Your task to perform on an android device: Clear the shopping cart on bestbuy. Add usb-a to usb-b to the cart on bestbuy Image 0: 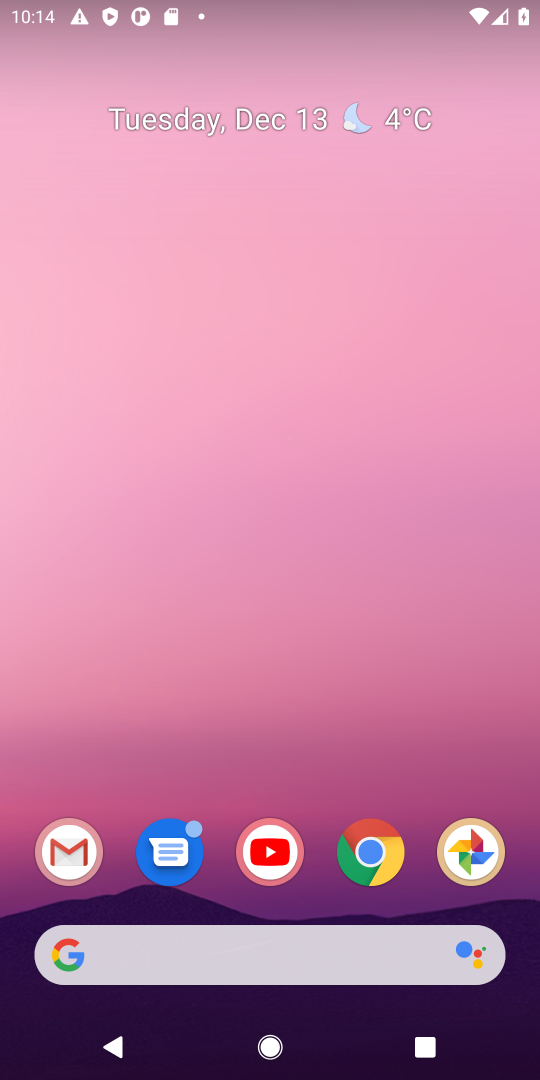
Step 0: press home button
Your task to perform on an android device: Clear the shopping cart on bestbuy. Add usb-a to usb-b to the cart on bestbuy Image 1: 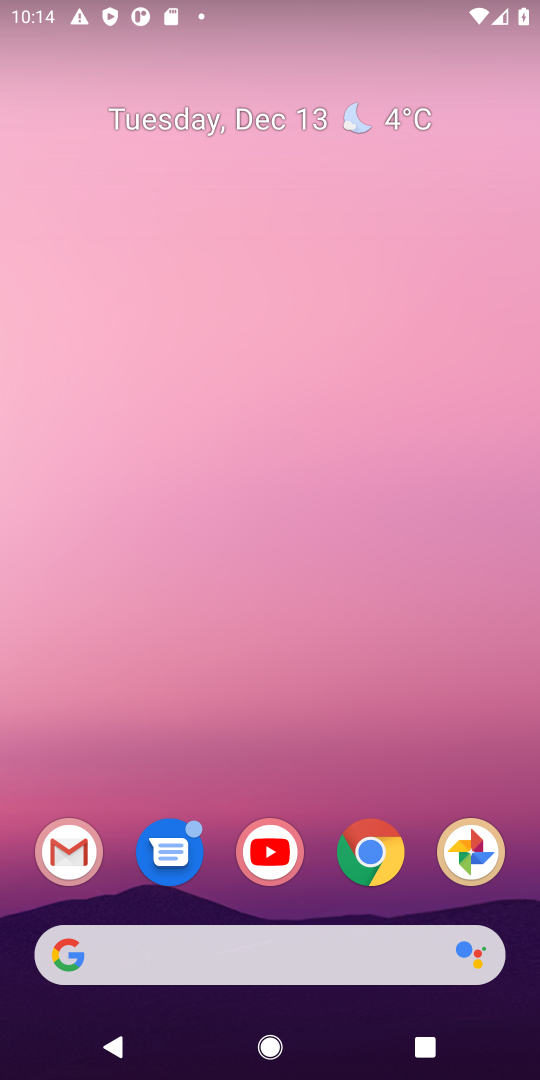
Step 1: click (106, 945)
Your task to perform on an android device: Clear the shopping cart on bestbuy. Add usb-a to usb-b to the cart on bestbuy Image 2: 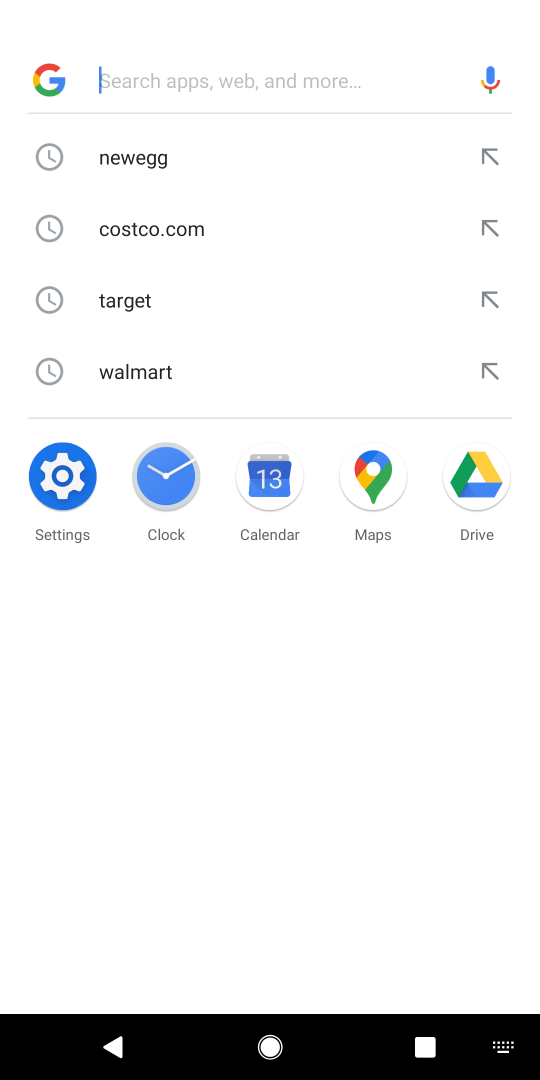
Step 2: type "bestbuy"
Your task to perform on an android device: Clear the shopping cart on bestbuy. Add usb-a to usb-b to the cart on bestbuy Image 3: 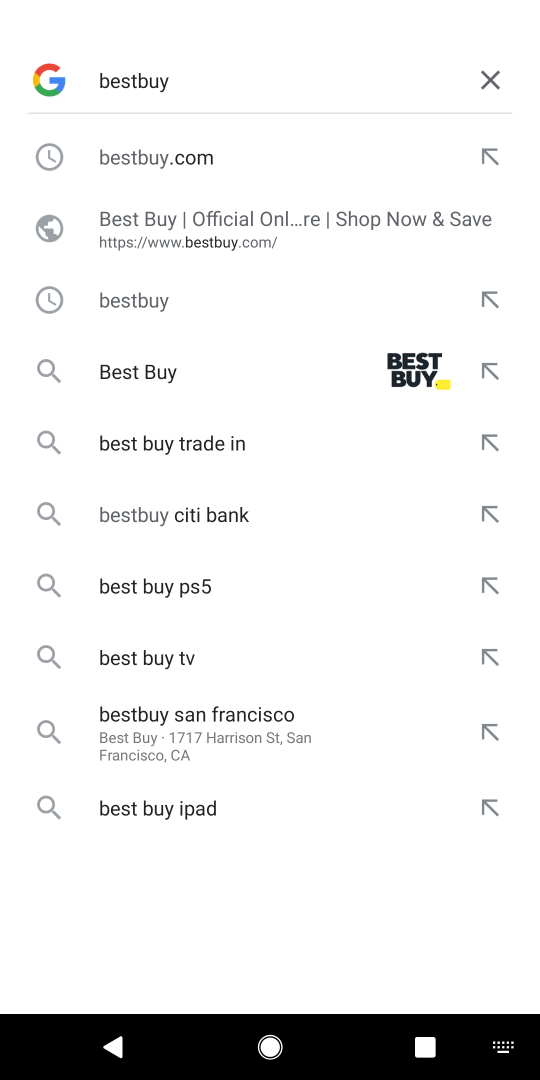
Step 3: press enter
Your task to perform on an android device: Clear the shopping cart on bestbuy. Add usb-a to usb-b to the cart on bestbuy Image 4: 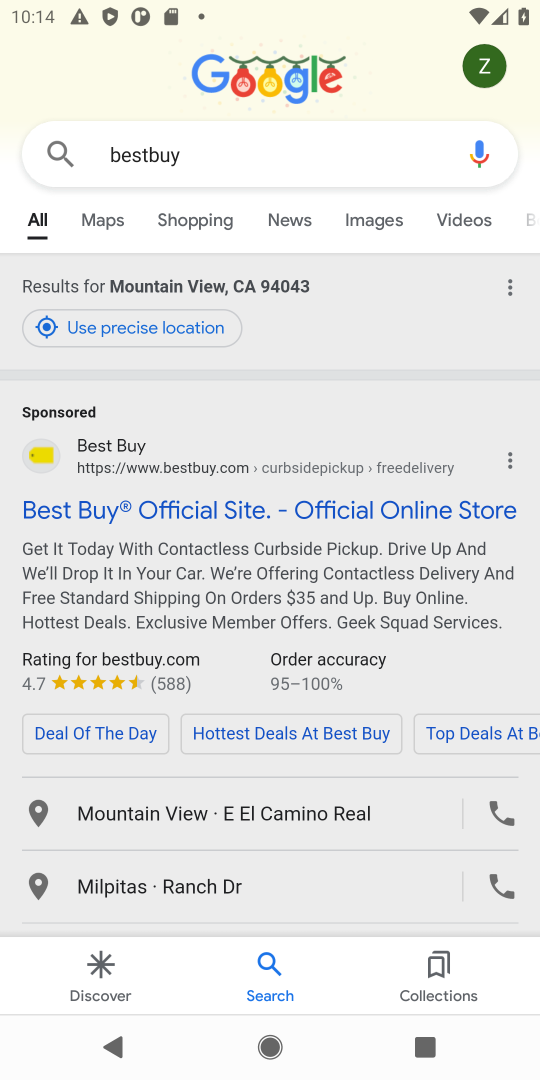
Step 4: click (255, 502)
Your task to perform on an android device: Clear the shopping cart on bestbuy. Add usb-a to usb-b to the cart on bestbuy Image 5: 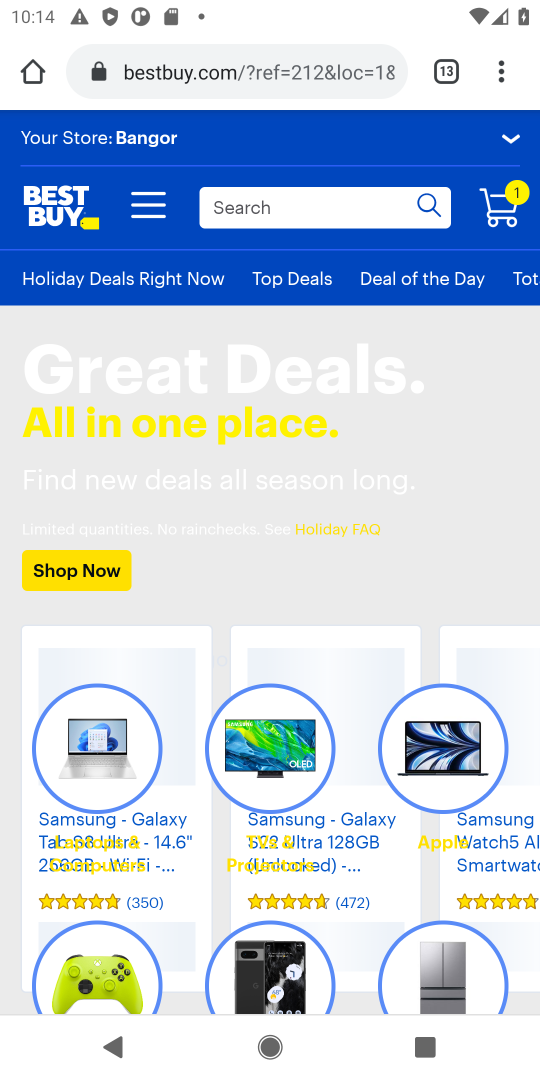
Step 5: click (499, 207)
Your task to perform on an android device: Clear the shopping cart on bestbuy. Add usb-a to usb-b to the cart on bestbuy Image 6: 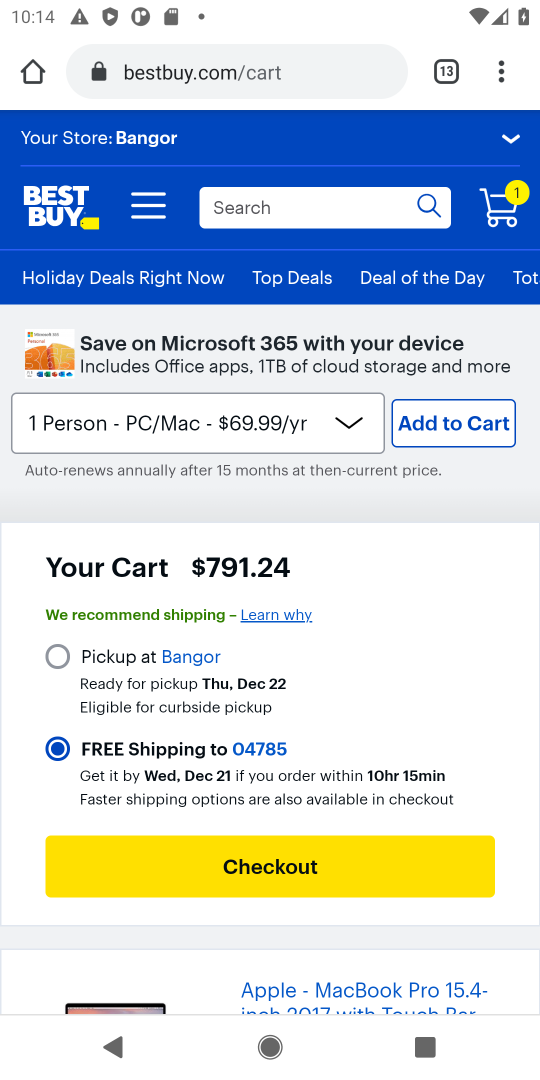
Step 6: drag from (383, 904) to (405, 633)
Your task to perform on an android device: Clear the shopping cart on bestbuy. Add usb-a to usb-b to the cart on bestbuy Image 7: 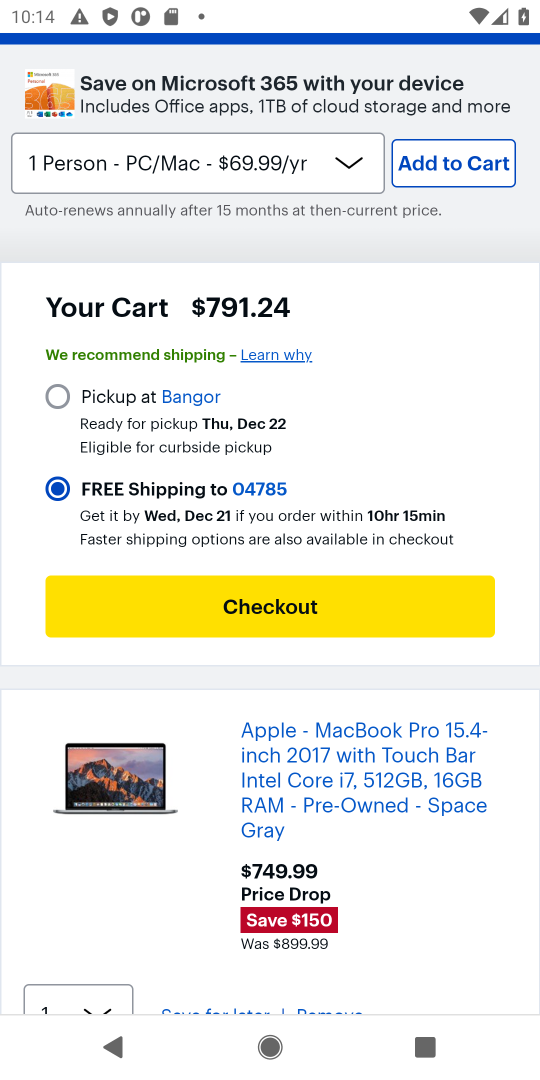
Step 7: drag from (372, 840) to (374, 434)
Your task to perform on an android device: Clear the shopping cart on bestbuy. Add usb-a to usb-b to the cart on bestbuy Image 8: 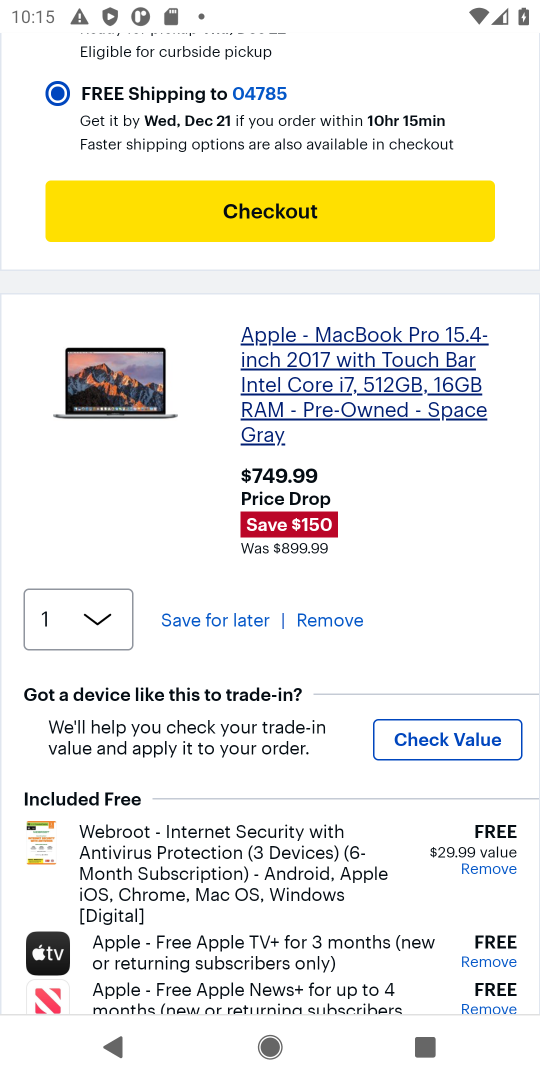
Step 8: click (313, 621)
Your task to perform on an android device: Clear the shopping cart on bestbuy. Add usb-a to usb-b to the cart on bestbuy Image 9: 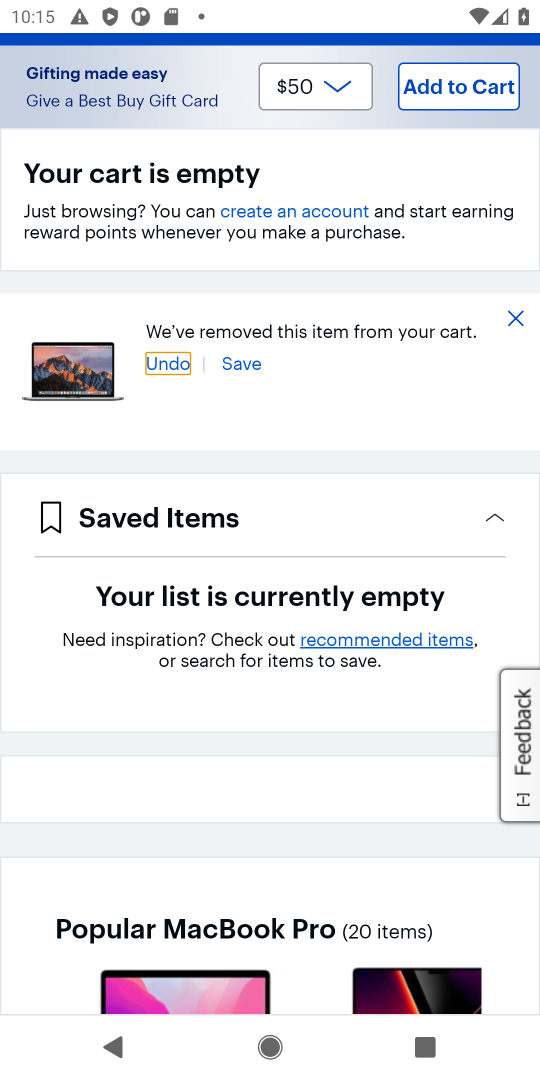
Step 9: drag from (379, 239) to (331, 731)
Your task to perform on an android device: Clear the shopping cart on bestbuy. Add usb-a to usb-b to the cart on bestbuy Image 10: 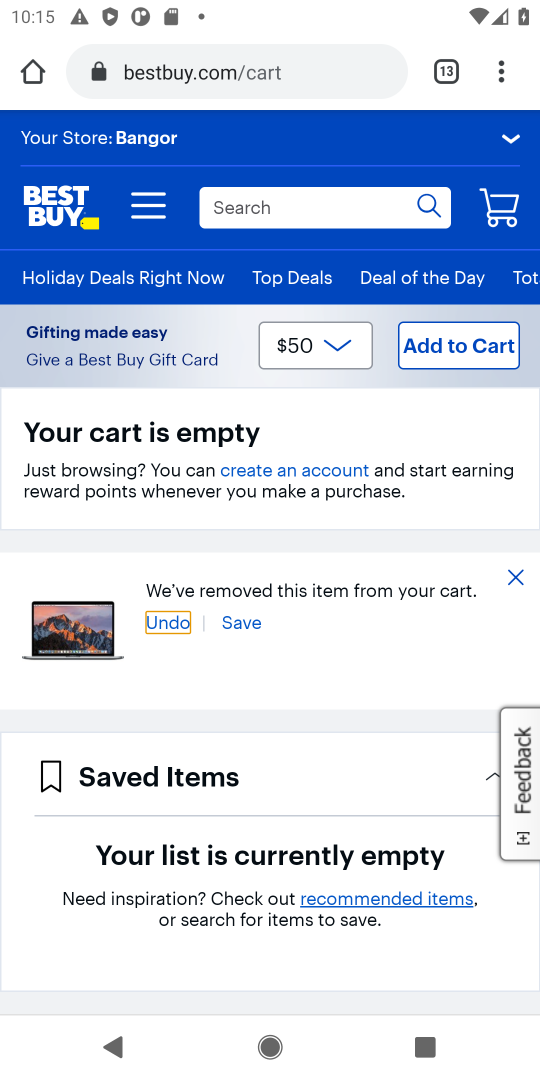
Step 10: click (278, 205)
Your task to perform on an android device: Clear the shopping cart on bestbuy. Add usb-a to usb-b to the cart on bestbuy Image 11: 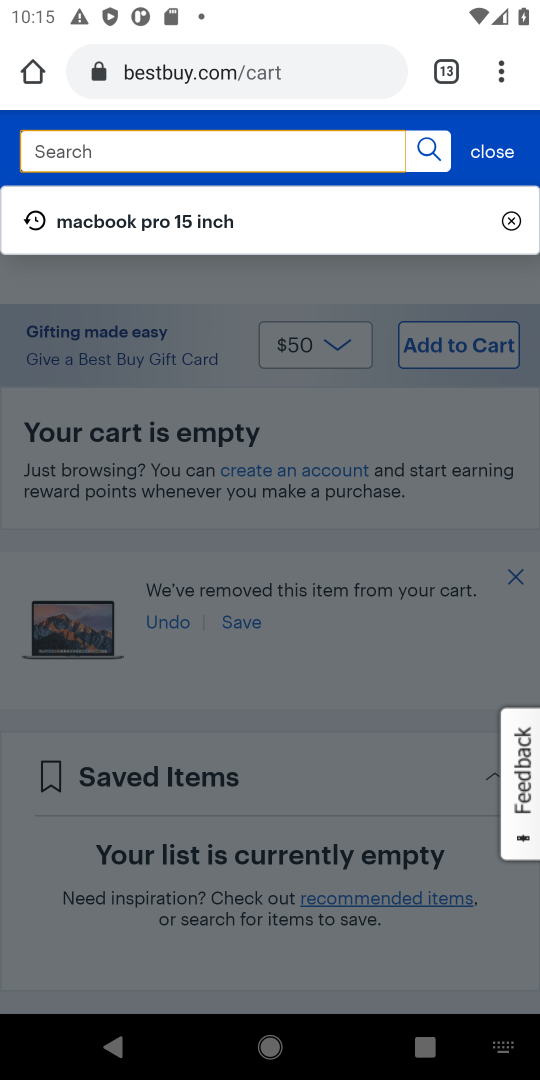
Step 11: type "usb-a to usb-b"
Your task to perform on an android device: Clear the shopping cart on bestbuy. Add usb-a to usb-b to the cart on bestbuy Image 12: 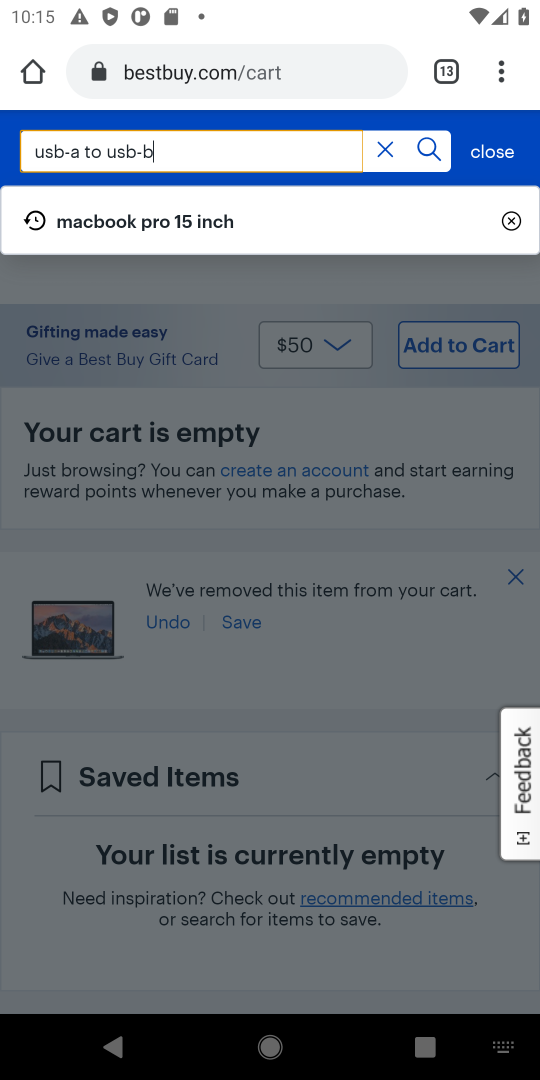
Step 12: press enter
Your task to perform on an android device: Clear the shopping cart on bestbuy. Add usb-a to usb-b to the cart on bestbuy Image 13: 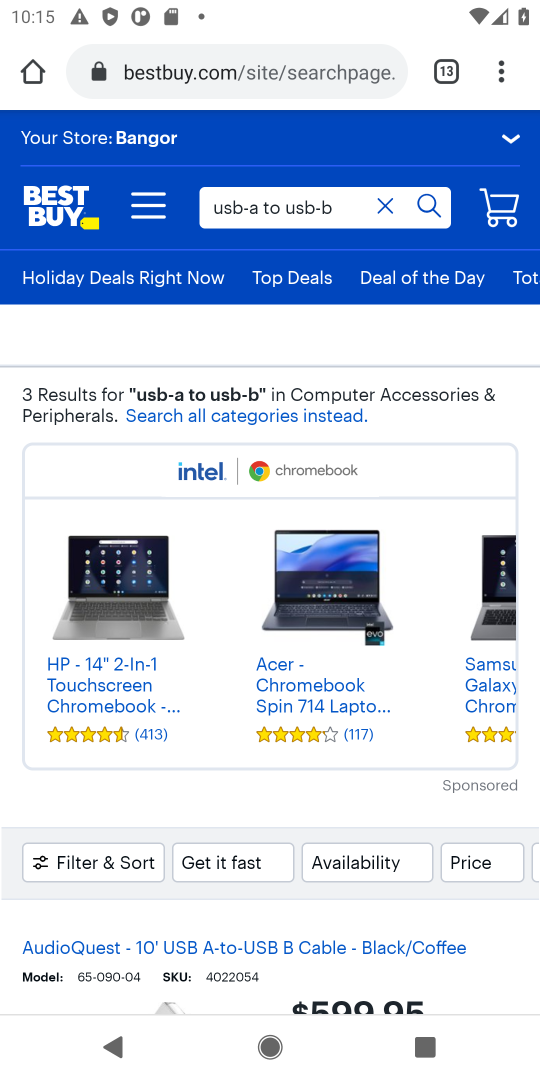
Step 13: drag from (236, 913) to (253, 474)
Your task to perform on an android device: Clear the shopping cart on bestbuy. Add usb-a to usb-b to the cart on bestbuy Image 14: 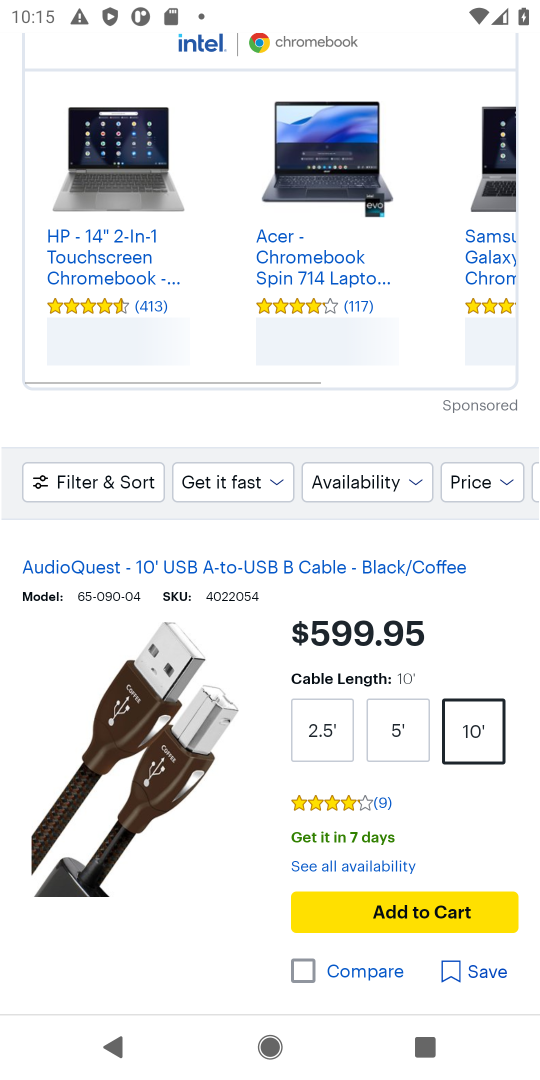
Step 14: drag from (181, 873) to (232, 536)
Your task to perform on an android device: Clear the shopping cart on bestbuy. Add usb-a to usb-b to the cart on bestbuy Image 15: 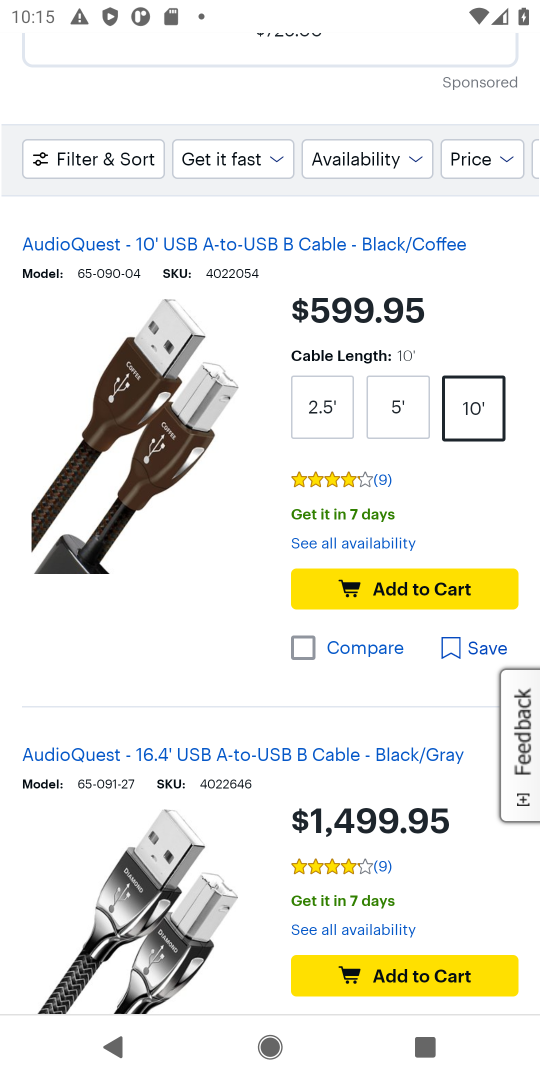
Step 15: click (409, 579)
Your task to perform on an android device: Clear the shopping cart on bestbuy. Add usb-a to usb-b to the cart on bestbuy Image 16: 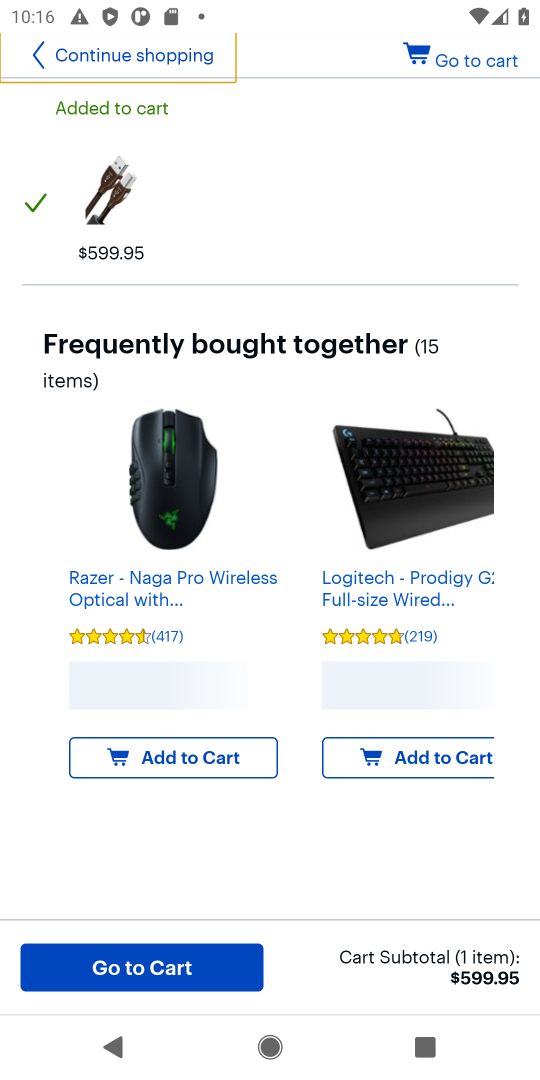
Step 16: click (119, 963)
Your task to perform on an android device: Clear the shopping cart on bestbuy. Add usb-a to usb-b to the cart on bestbuy Image 17: 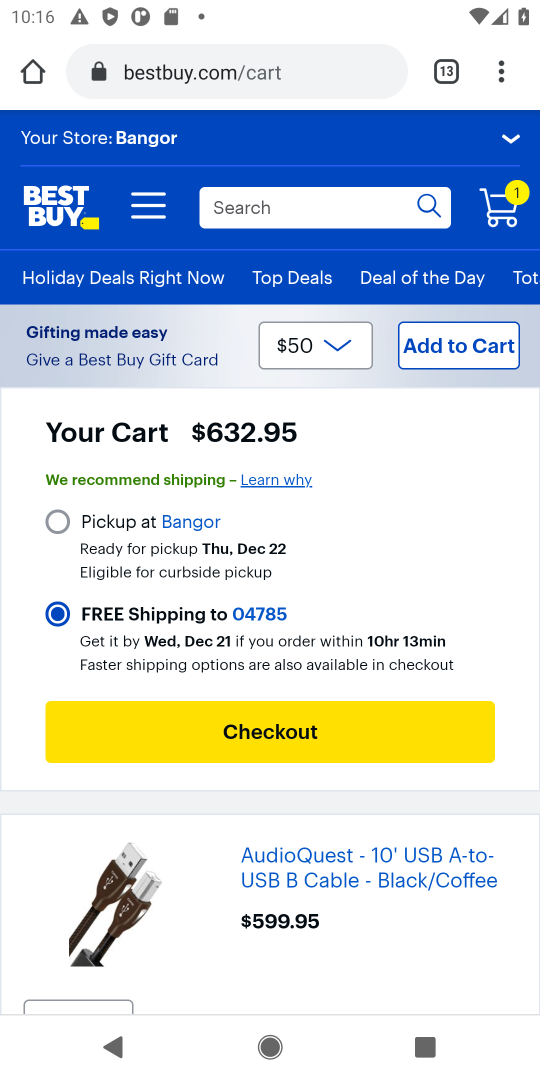
Step 17: task complete